Your task to perform on an android device: Open Wikipedia Image 0: 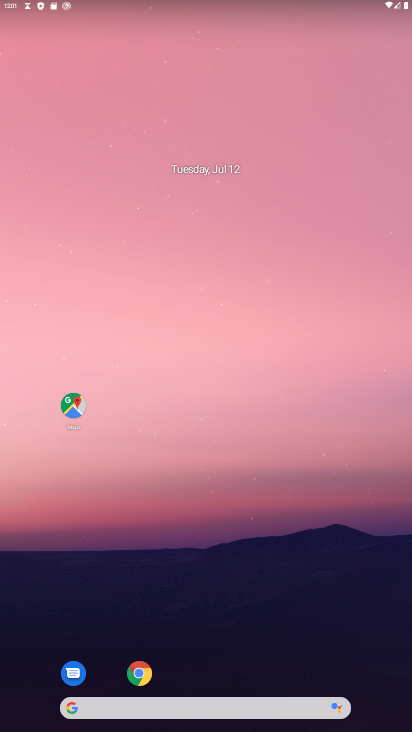
Step 0: click (132, 670)
Your task to perform on an android device: Open Wikipedia Image 1: 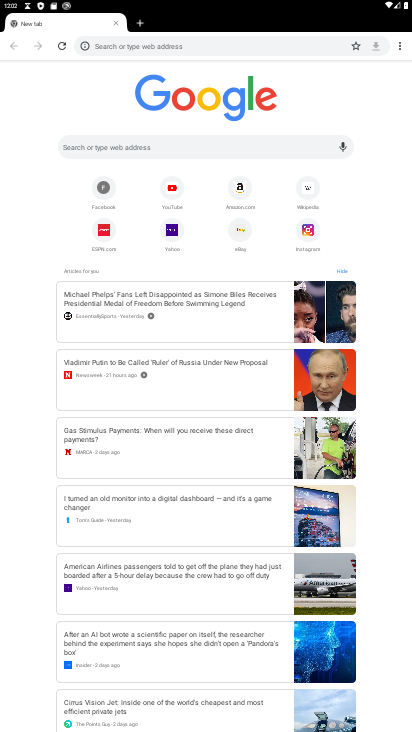
Step 1: click (307, 191)
Your task to perform on an android device: Open Wikipedia Image 2: 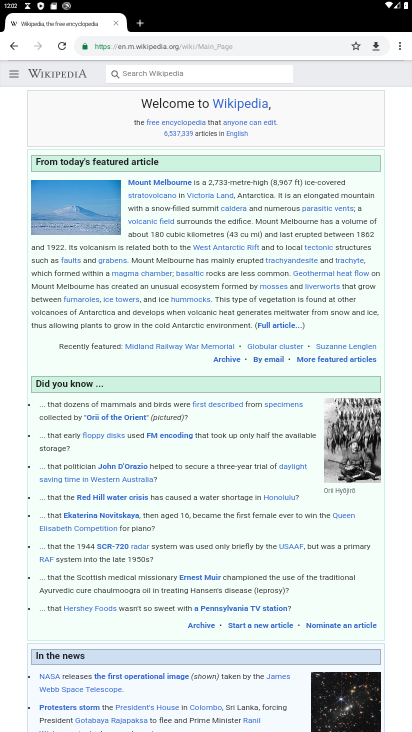
Step 2: task complete